Your task to perform on an android device: Add usb-c to the cart on walmart.com, then select checkout. Image 0: 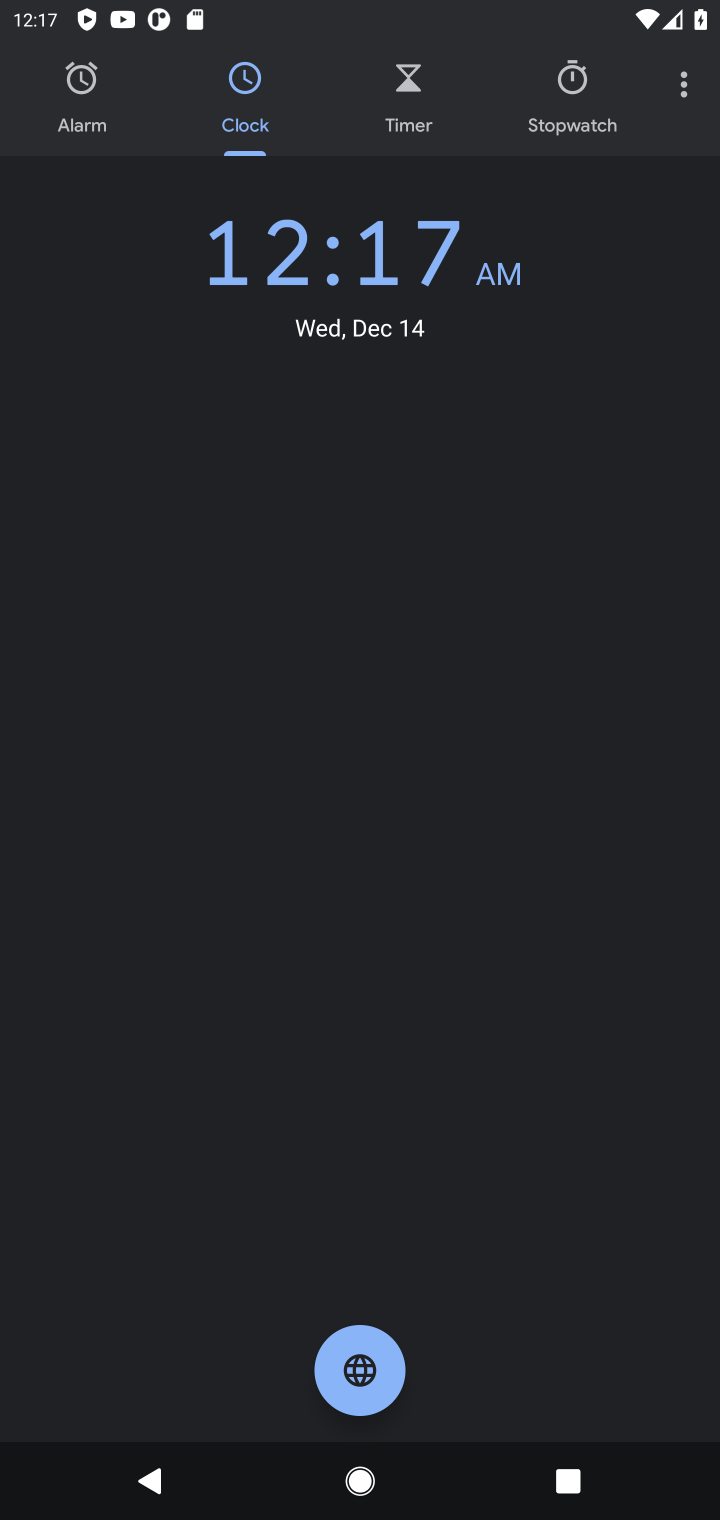
Step 0: press home button
Your task to perform on an android device: Add usb-c to the cart on walmart.com, then select checkout. Image 1: 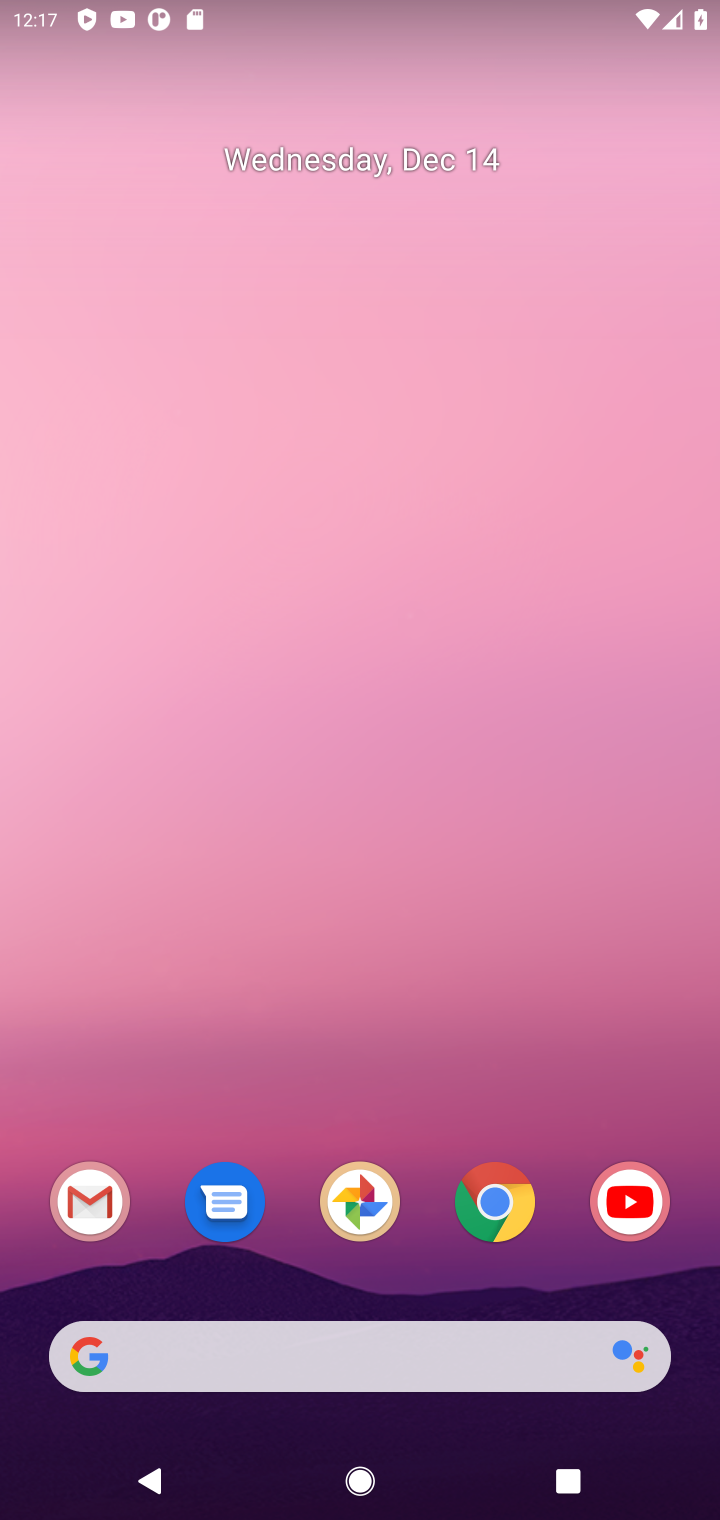
Step 1: click (509, 1215)
Your task to perform on an android device: Add usb-c to the cart on walmart.com, then select checkout. Image 2: 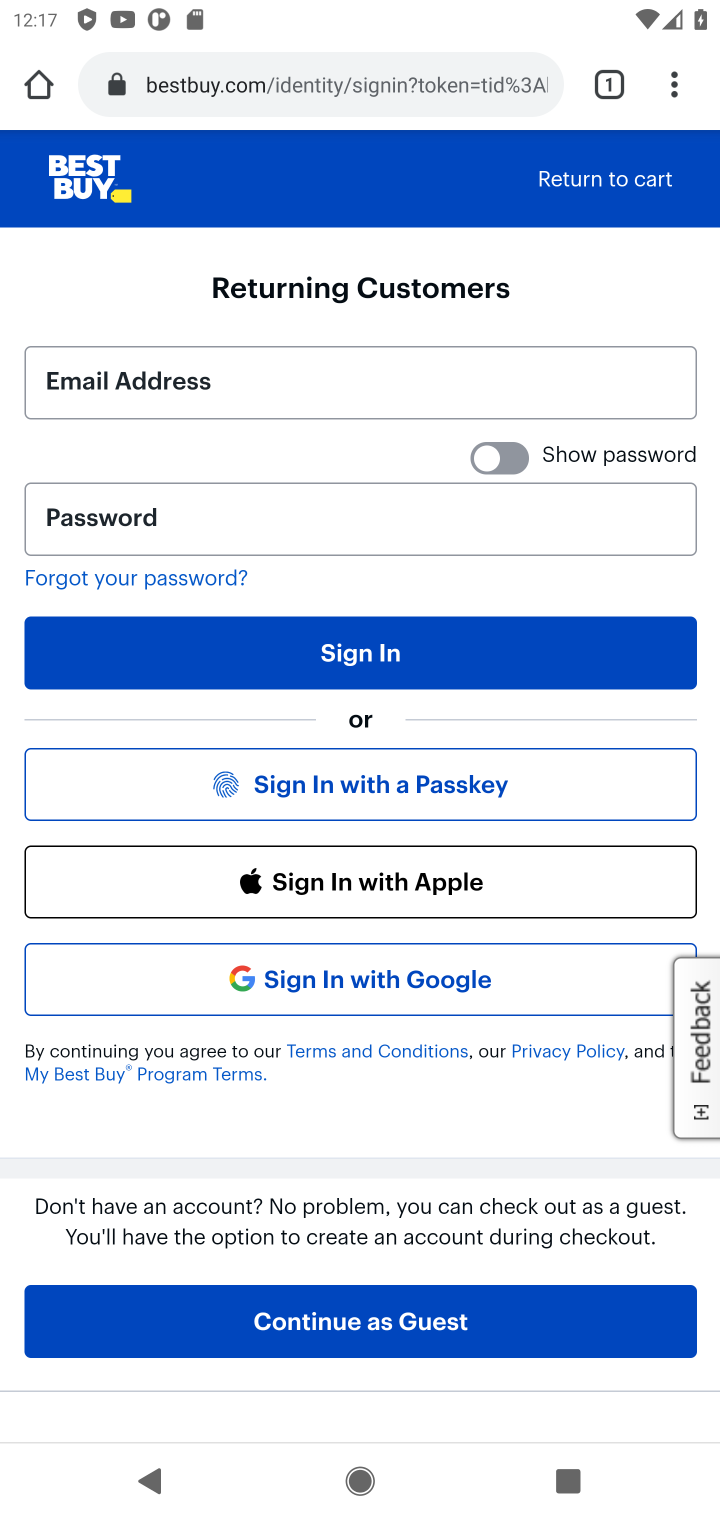
Step 2: click (354, 86)
Your task to perform on an android device: Add usb-c to the cart on walmart.com, then select checkout. Image 3: 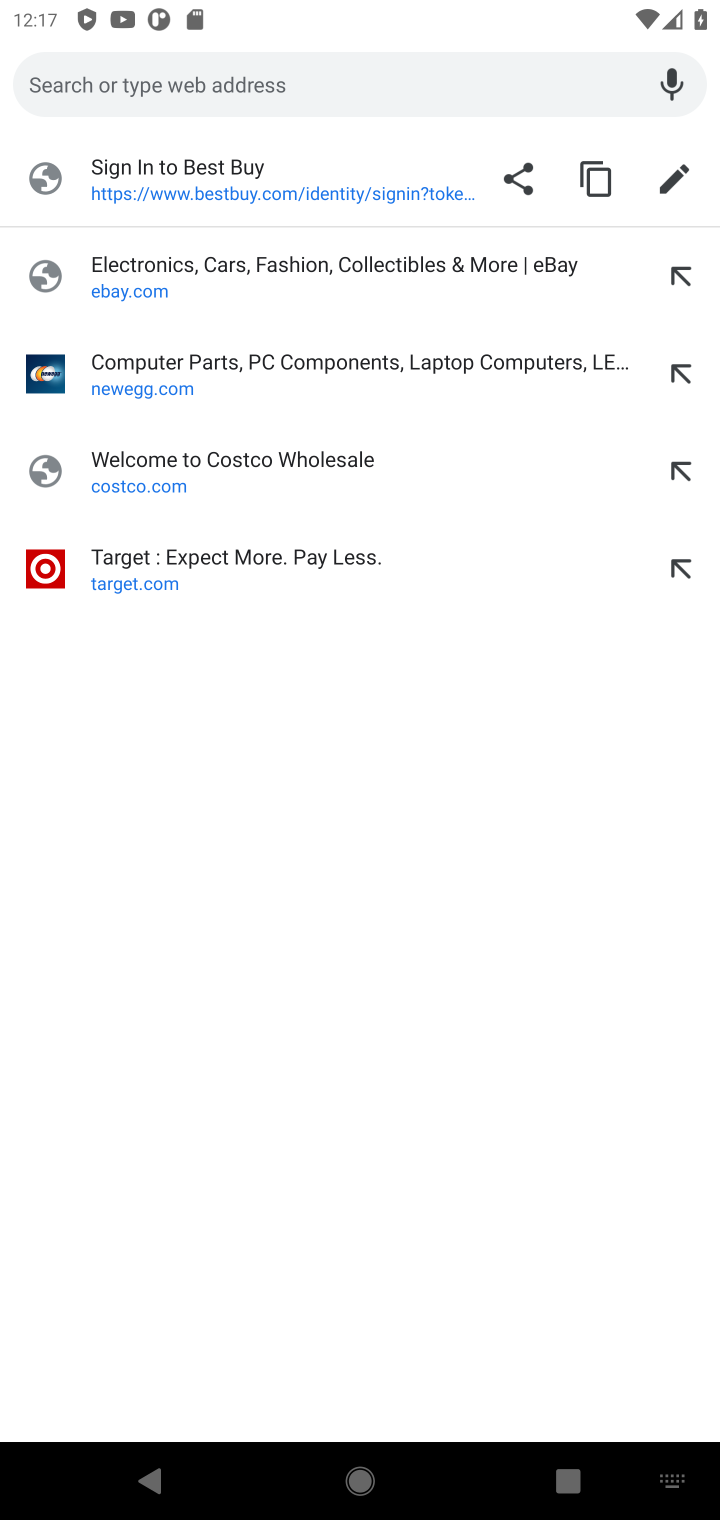
Step 3: type "walmart"
Your task to perform on an android device: Add usb-c to the cart on walmart.com, then select checkout. Image 4: 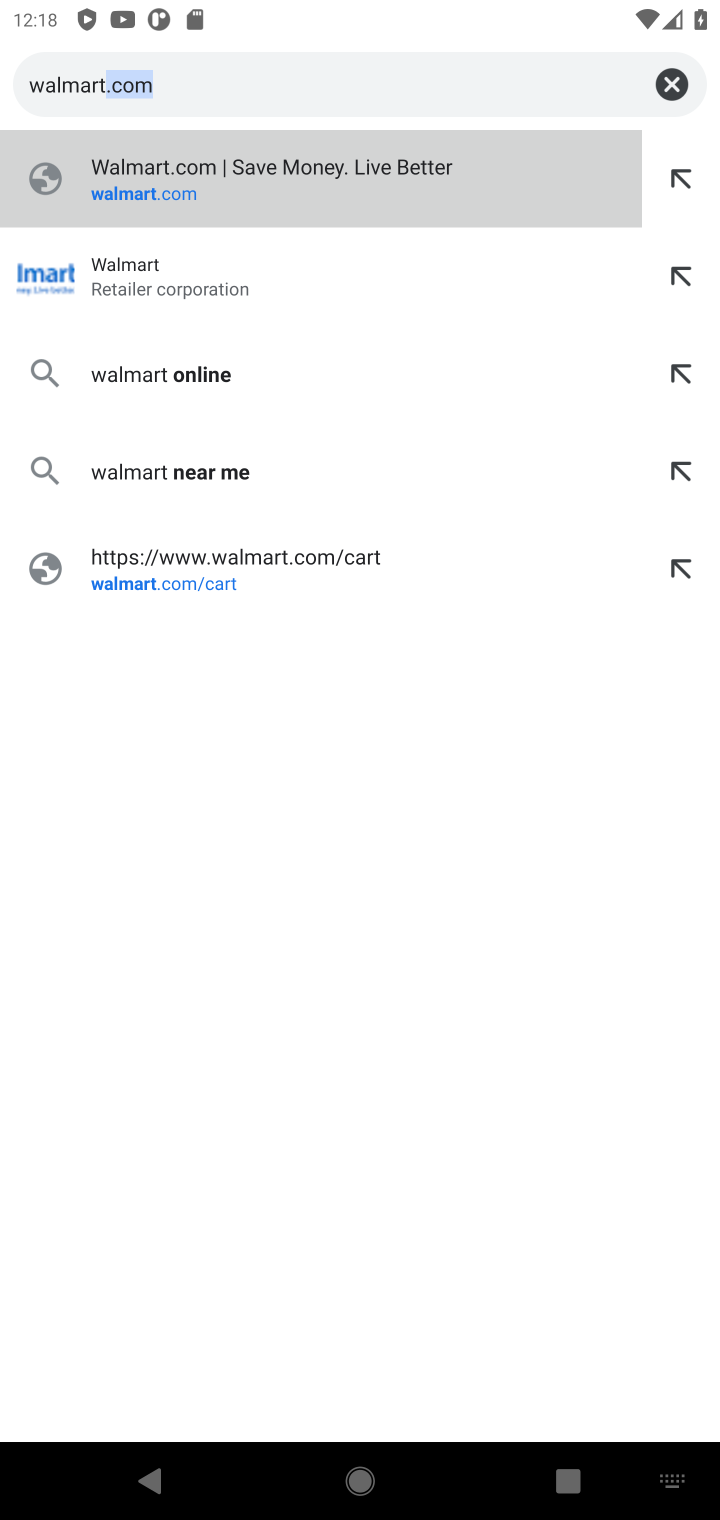
Step 4: click (249, 180)
Your task to perform on an android device: Add usb-c to the cart on walmart.com, then select checkout. Image 5: 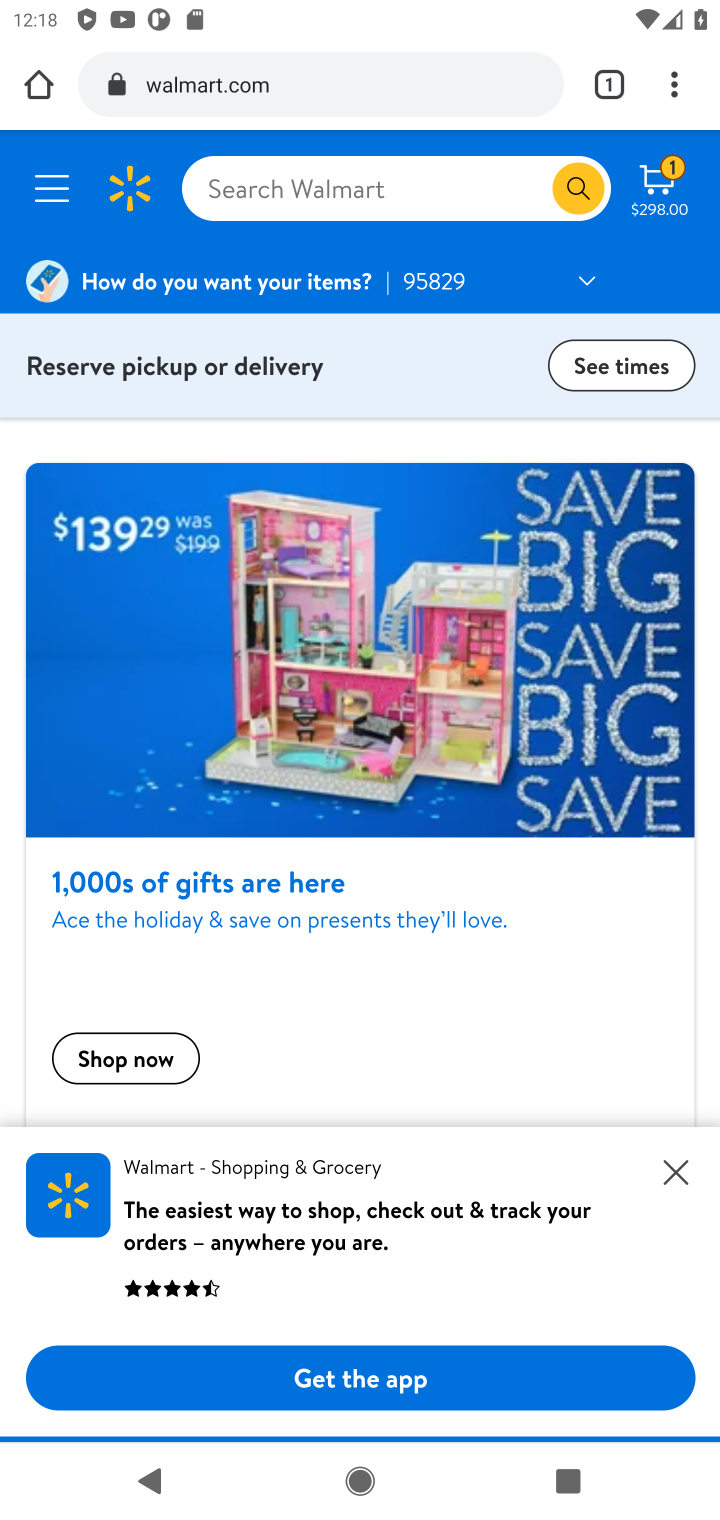
Step 5: click (347, 180)
Your task to perform on an android device: Add usb-c to the cart on walmart.com, then select checkout. Image 6: 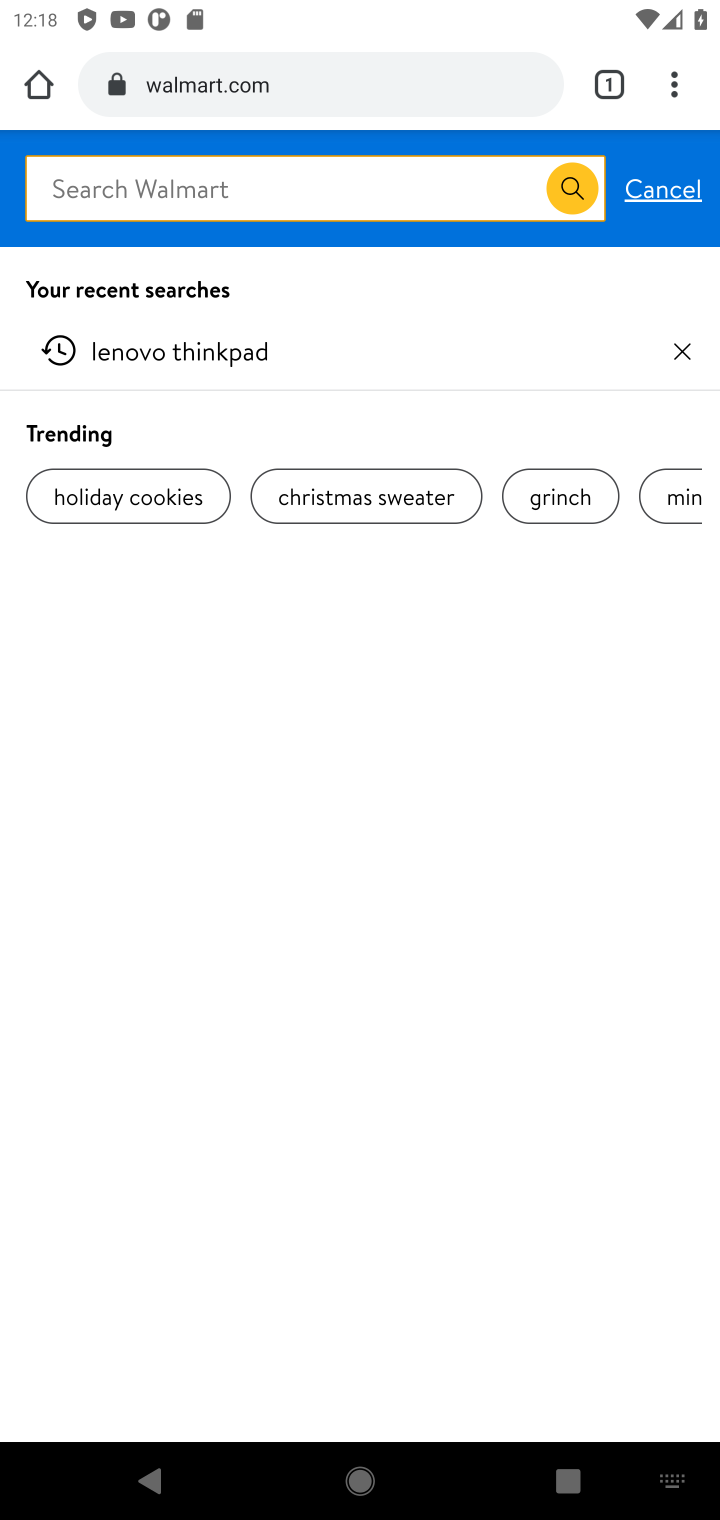
Step 6: type "usb-c"
Your task to perform on an android device: Add usb-c to the cart on walmart.com, then select checkout. Image 7: 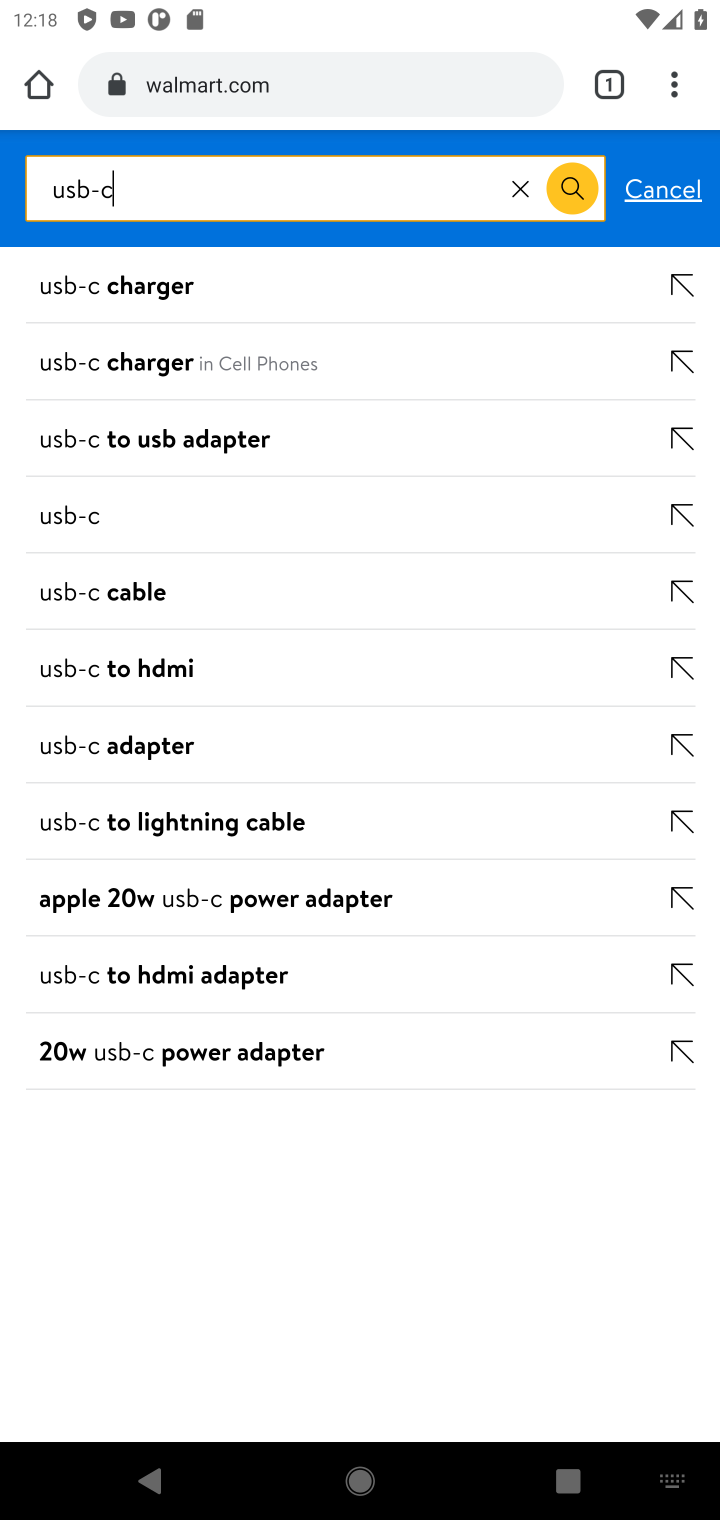
Step 7: click (115, 296)
Your task to perform on an android device: Add usb-c to the cart on walmart.com, then select checkout. Image 8: 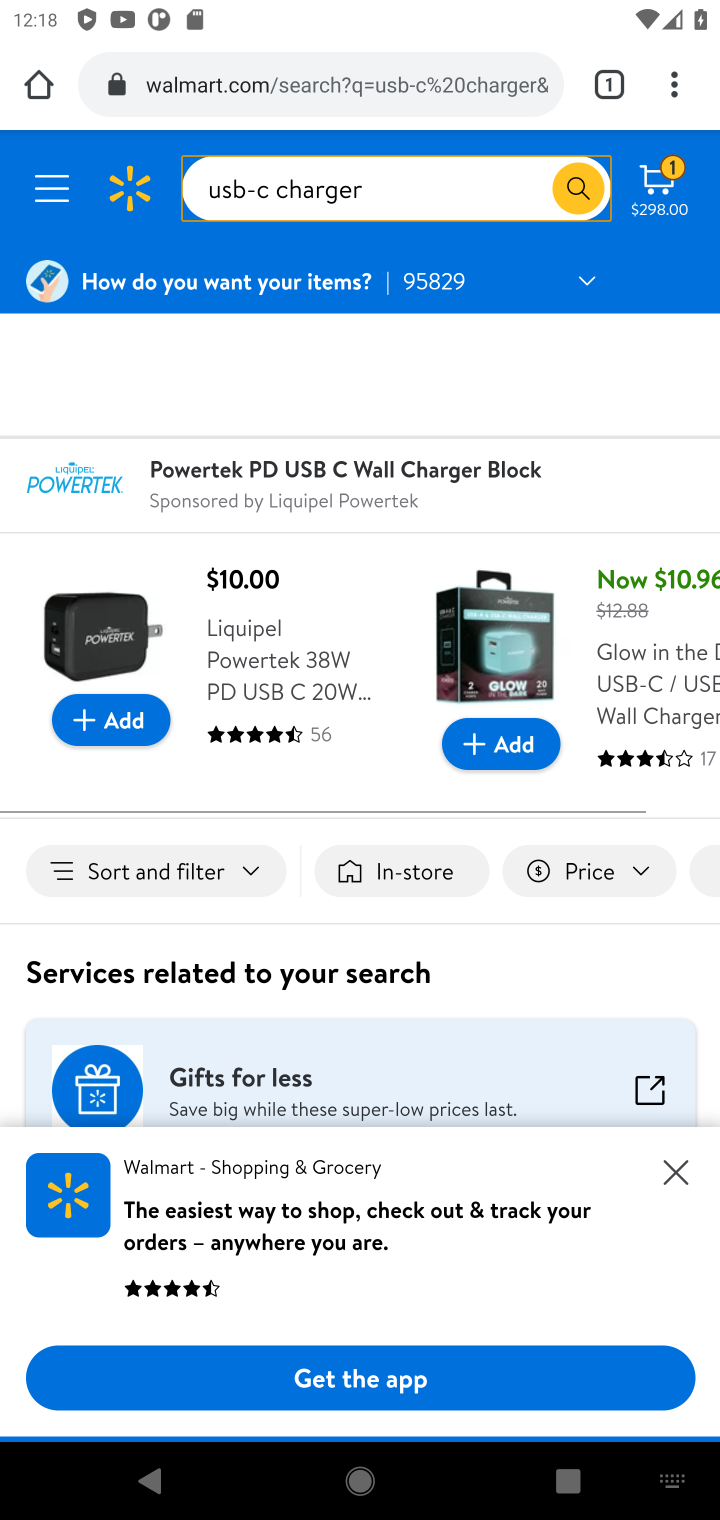
Step 8: drag from (469, 1042) to (418, 373)
Your task to perform on an android device: Add usb-c to the cart on walmart.com, then select checkout. Image 9: 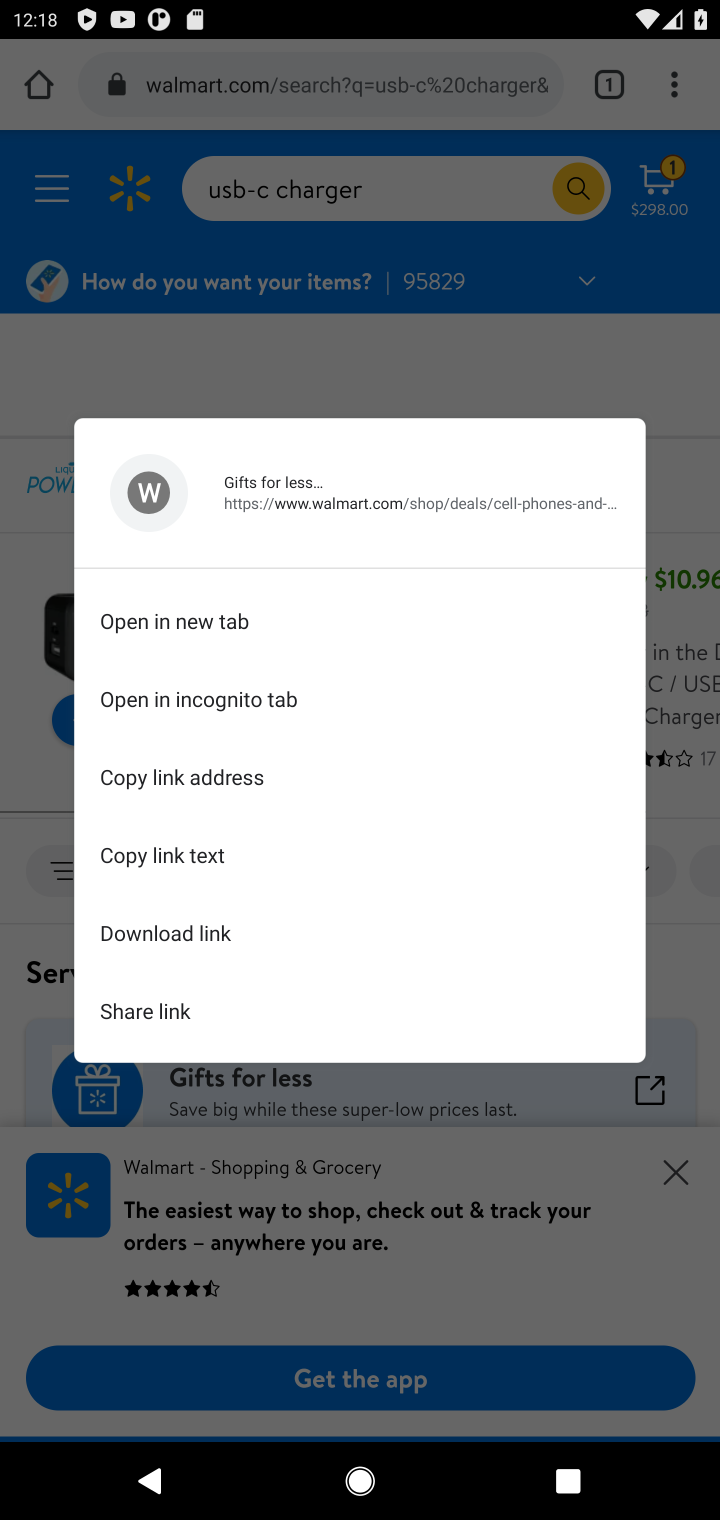
Step 9: click (536, 342)
Your task to perform on an android device: Add usb-c to the cart on walmart.com, then select checkout. Image 10: 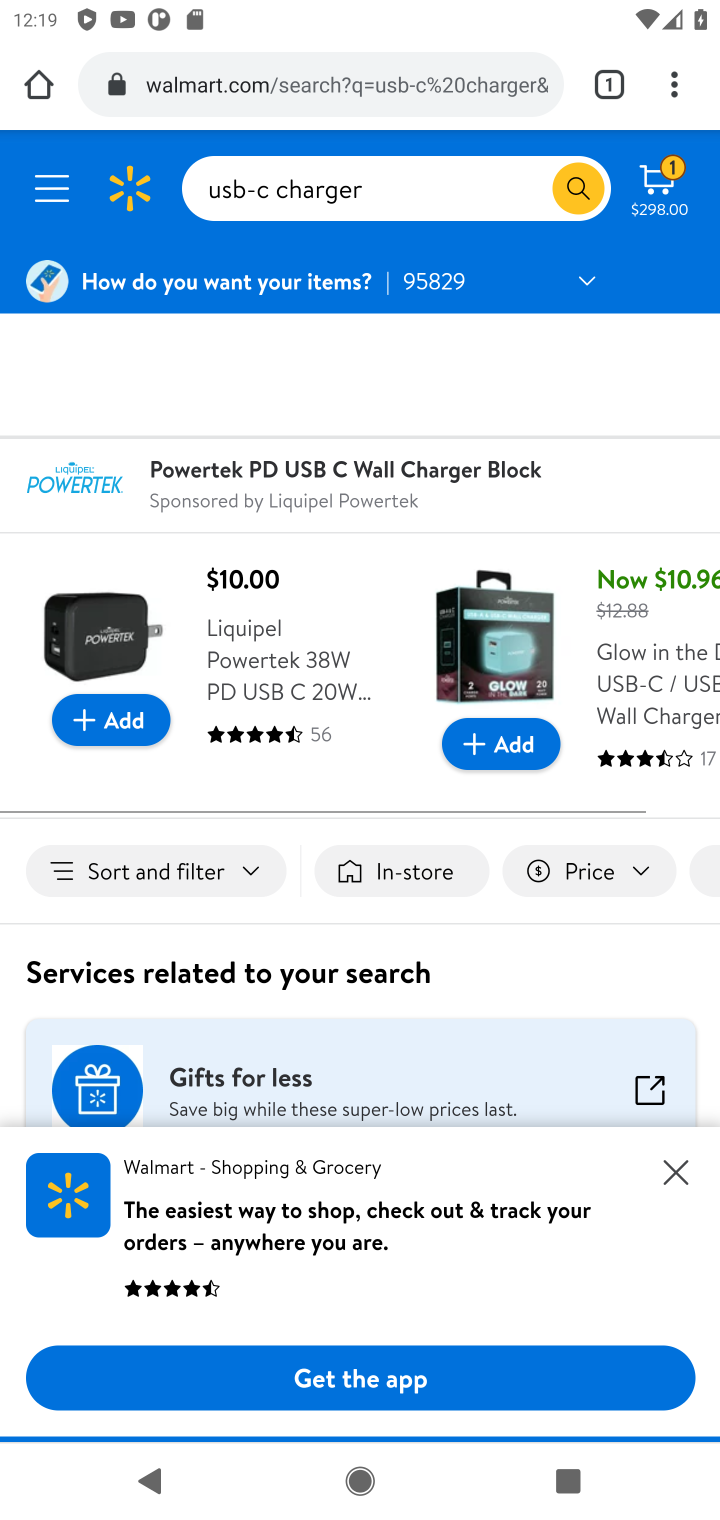
Step 10: drag from (475, 1057) to (458, 284)
Your task to perform on an android device: Add usb-c to the cart on walmart.com, then select checkout. Image 11: 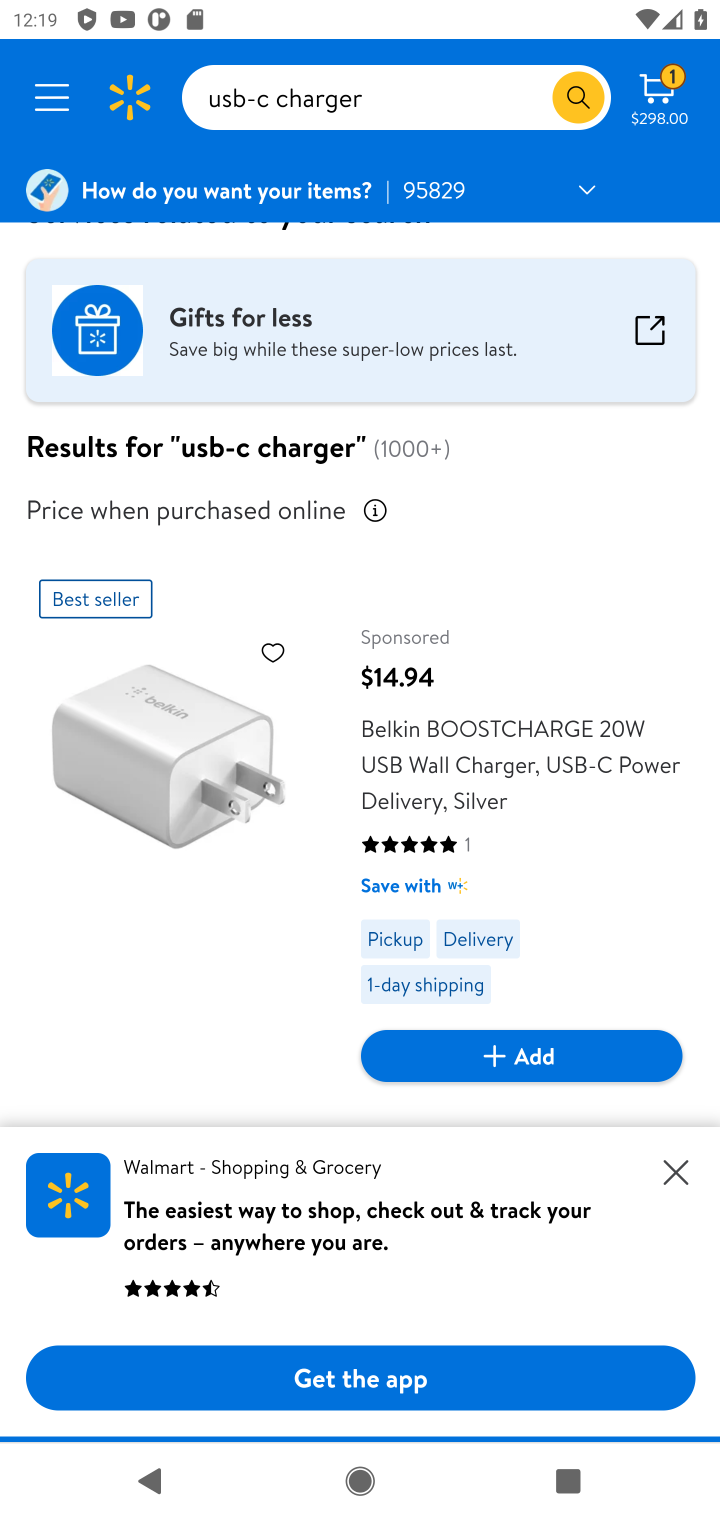
Step 11: click (523, 1070)
Your task to perform on an android device: Add usb-c to the cart on walmart.com, then select checkout. Image 12: 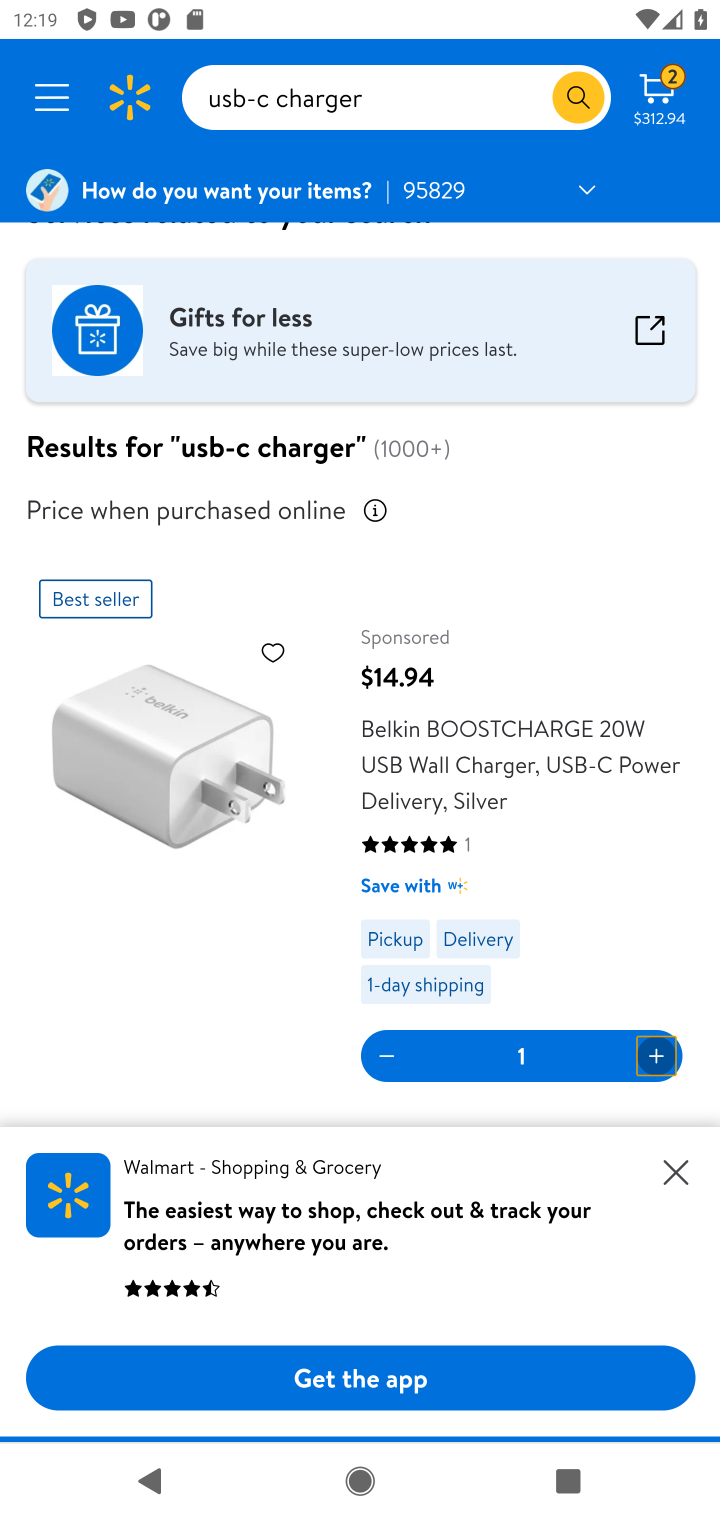
Step 12: click (658, 98)
Your task to perform on an android device: Add usb-c to the cart on walmart.com, then select checkout. Image 13: 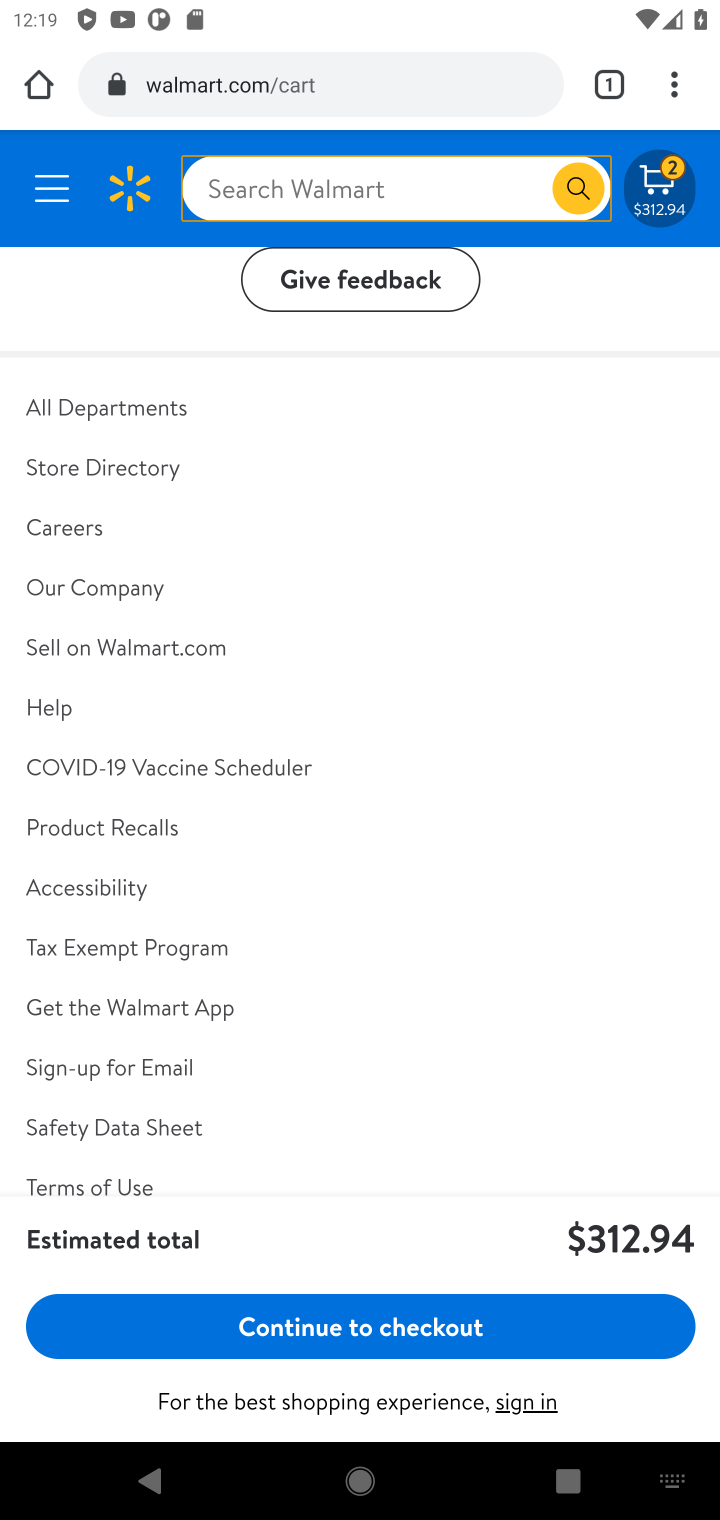
Step 13: click (391, 1327)
Your task to perform on an android device: Add usb-c to the cart on walmart.com, then select checkout. Image 14: 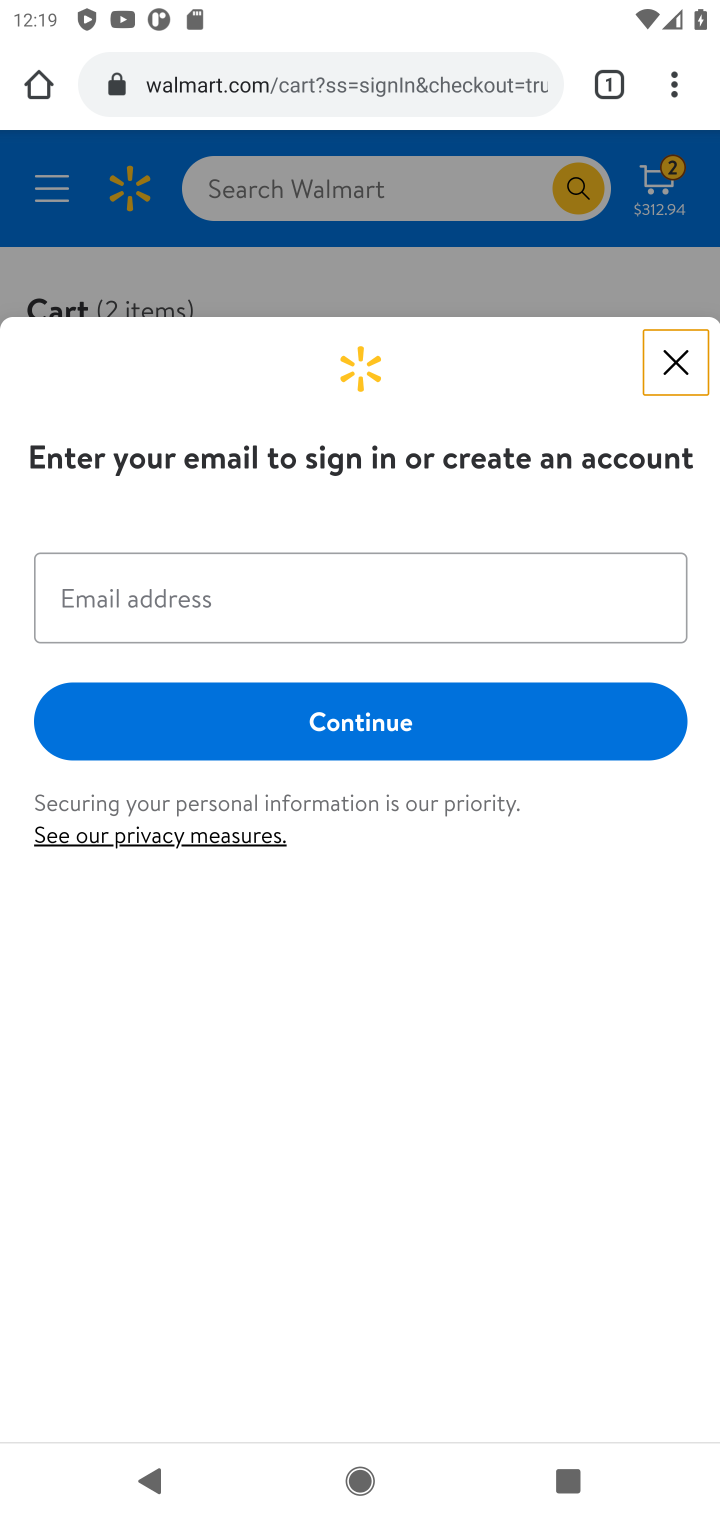
Step 14: task complete